Your task to perform on an android device: open app "Speedtest by Ookla" Image 0: 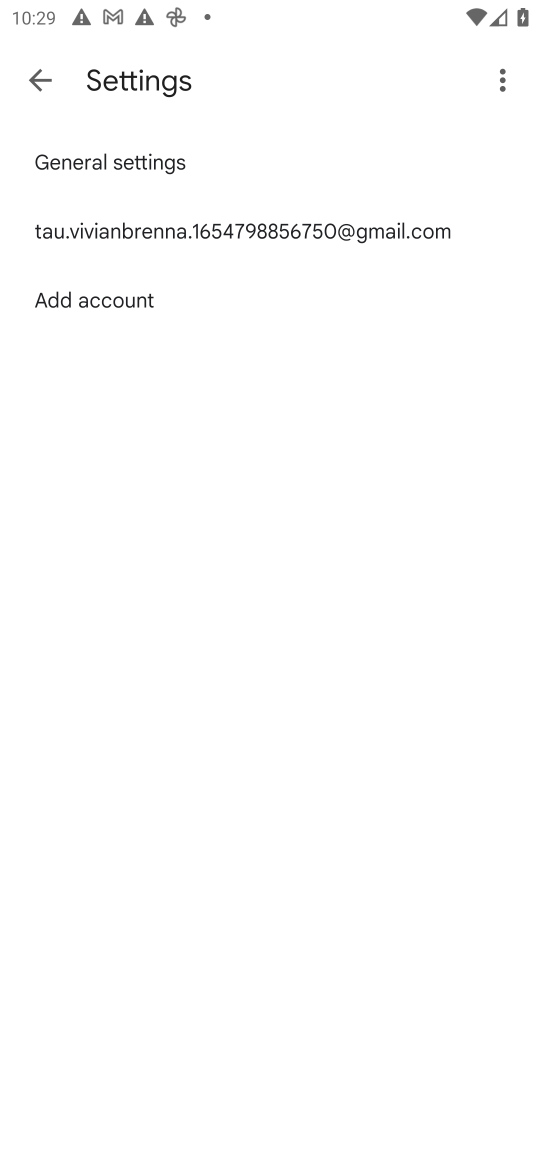
Step 0: press home button
Your task to perform on an android device: open app "Speedtest by Ookla" Image 1: 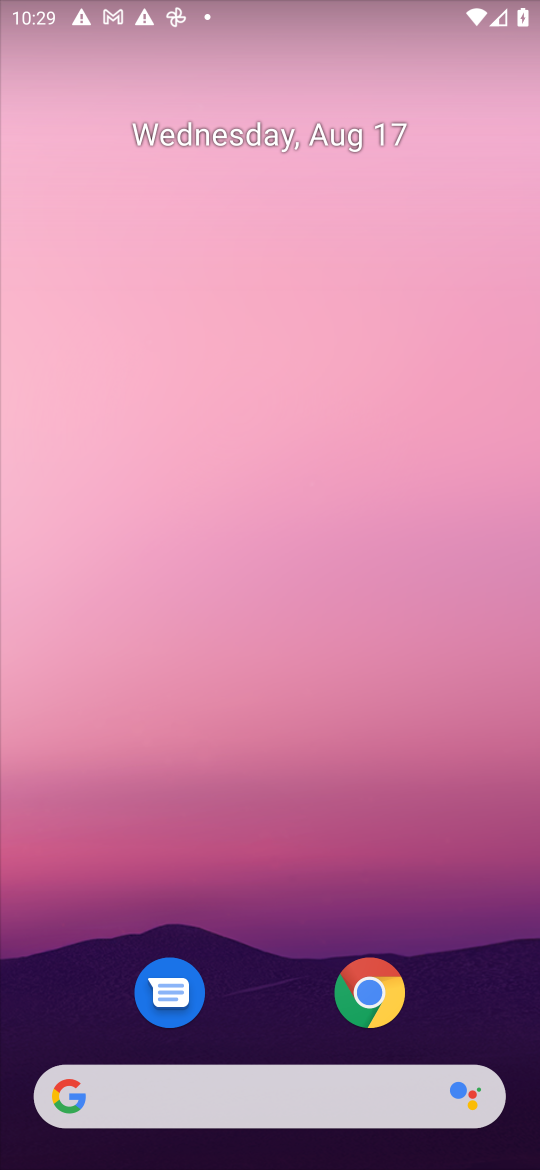
Step 1: drag from (500, 996) to (198, 76)
Your task to perform on an android device: open app "Speedtest by Ookla" Image 2: 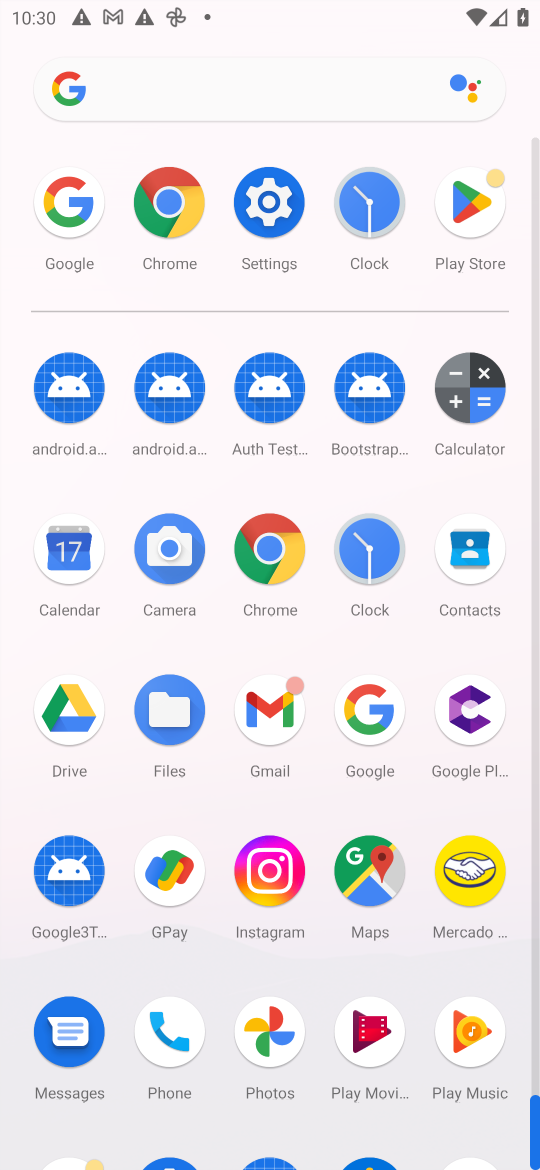
Step 2: click (477, 206)
Your task to perform on an android device: open app "Speedtest by Ookla" Image 3: 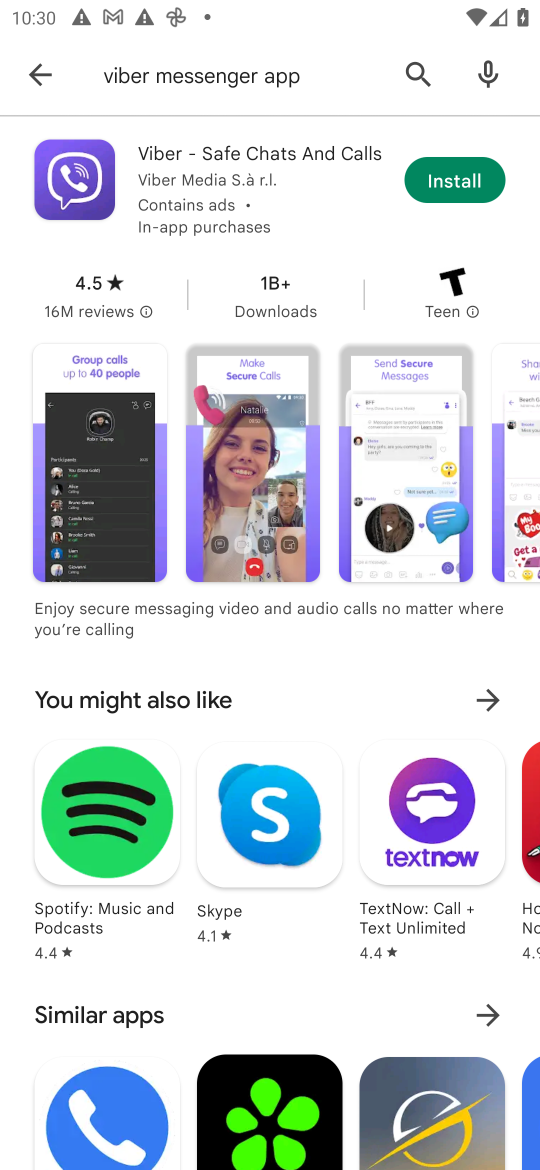
Step 3: press back button
Your task to perform on an android device: open app "Speedtest by Ookla" Image 4: 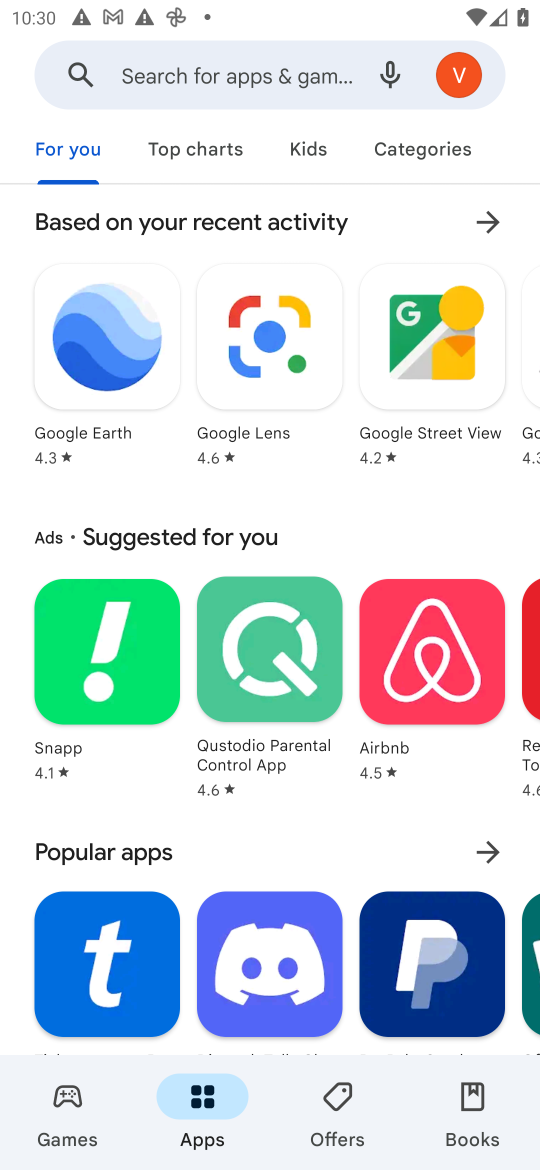
Step 4: click (172, 93)
Your task to perform on an android device: open app "Speedtest by Ookla" Image 5: 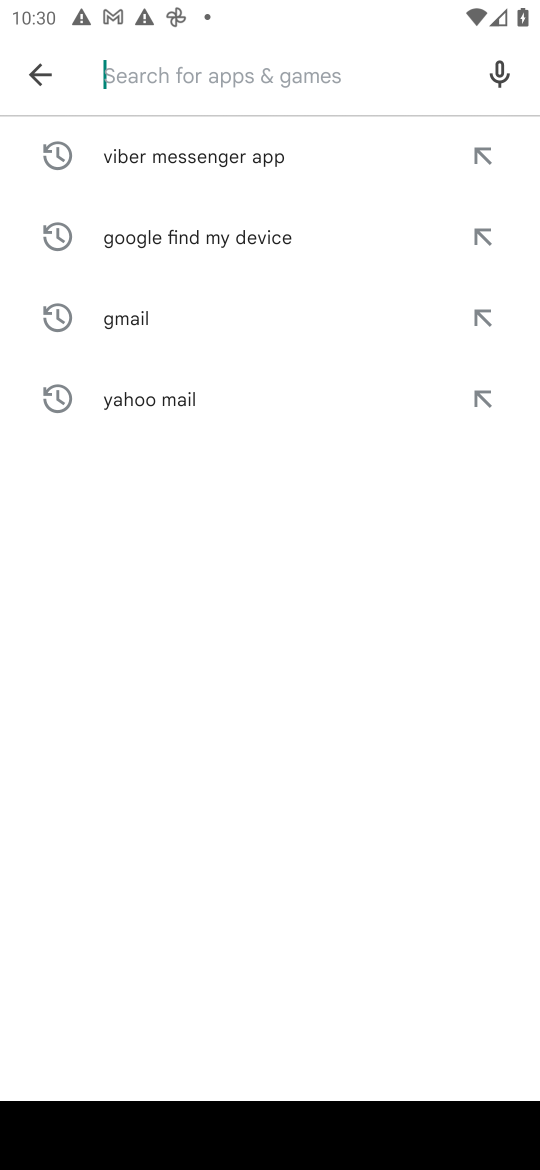
Step 5: type "Speedtest by Ookla"
Your task to perform on an android device: open app "Speedtest by Ookla" Image 6: 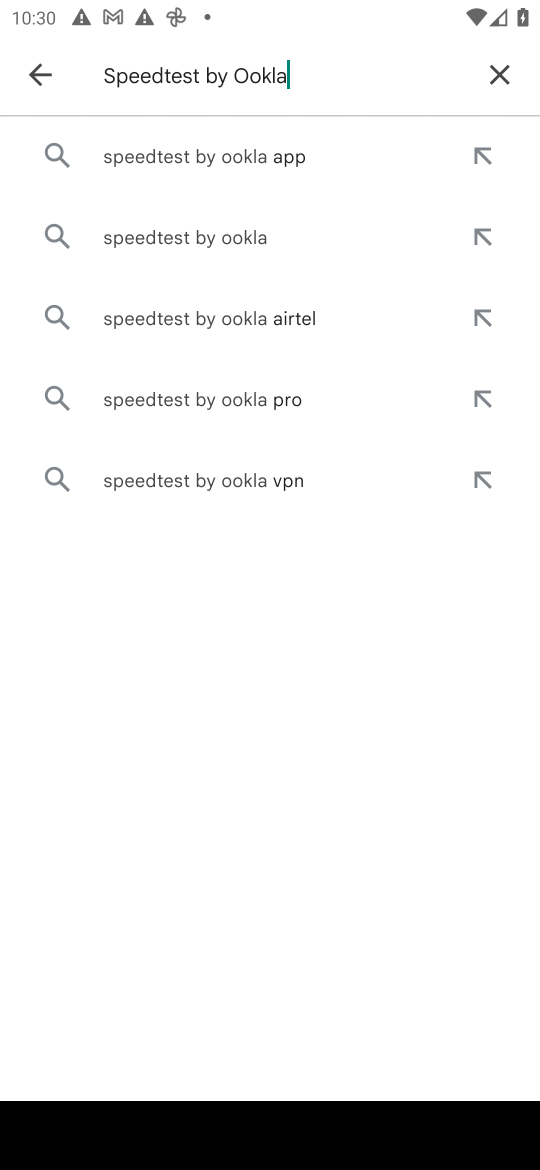
Step 6: click (222, 238)
Your task to perform on an android device: open app "Speedtest by Ookla" Image 7: 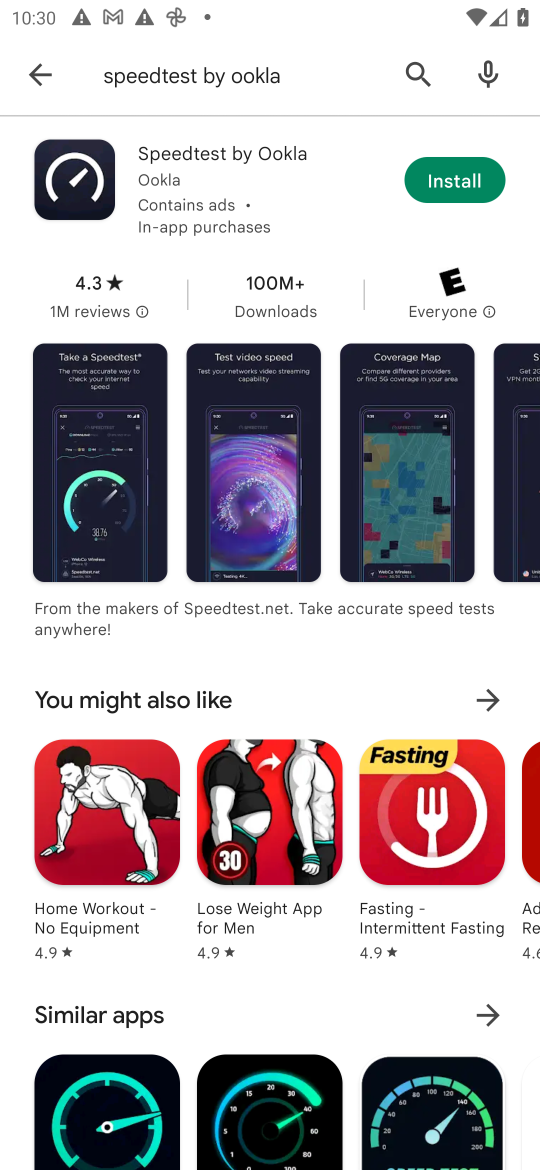
Step 7: task complete